Your task to perform on an android device: Go to privacy settings Image 0: 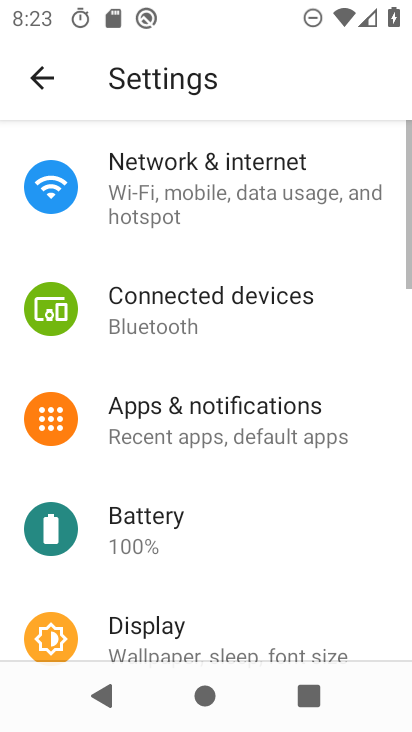
Step 0: press home button
Your task to perform on an android device: Go to privacy settings Image 1: 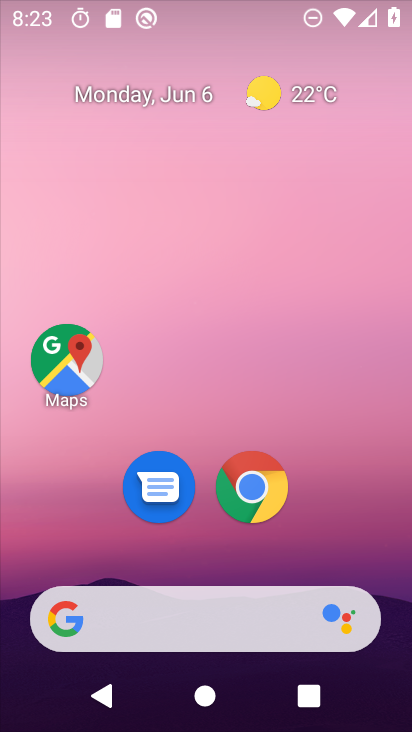
Step 1: drag from (383, 656) to (317, 67)
Your task to perform on an android device: Go to privacy settings Image 2: 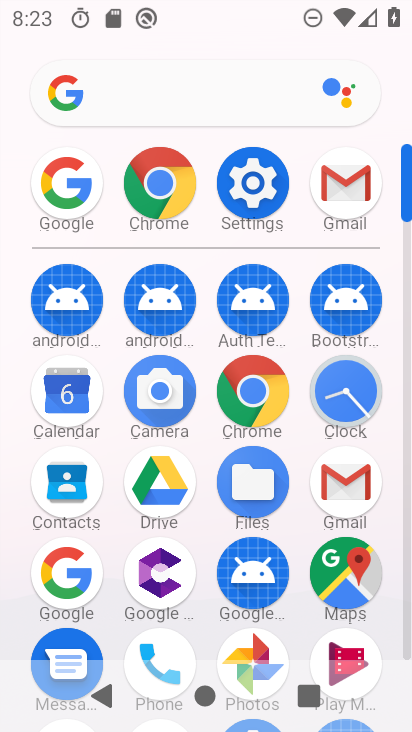
Step 2: click (248, 200)
Your task to perform on an android device: Go to privacy settings Image 3: 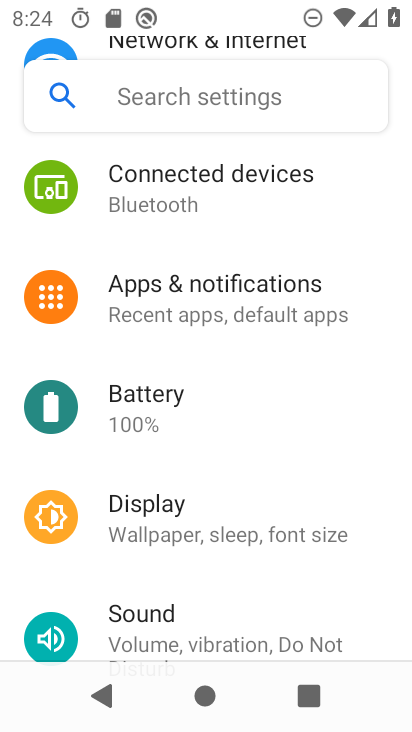
Step 3: drag from (219, 513) to (209, 181)
Your task to perform on an android device: Go to privacy settings Image 4: 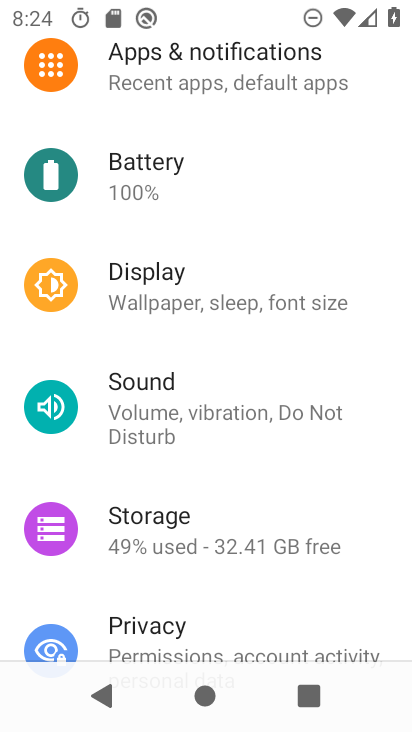
Step 4: click (159, 618)
Your task to perform on an android device: Go to privacy settings Image 5: 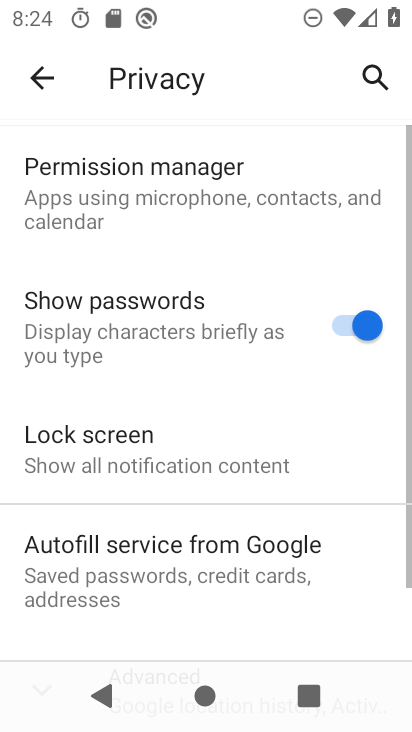
Step 5: task complete